Your task to perform on an android device: turn on improve location accuracy Image 0: 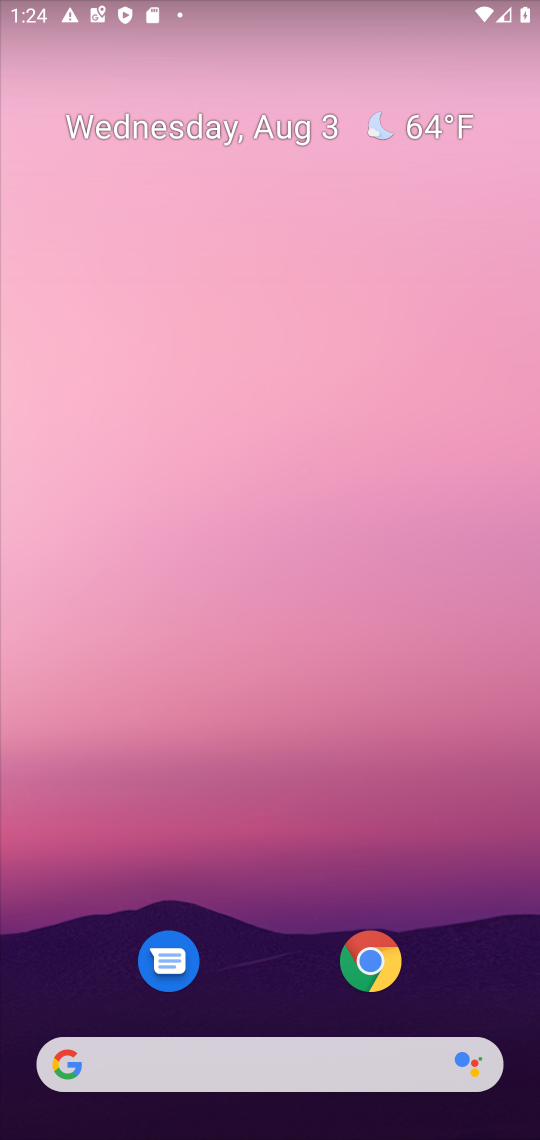
Step 0: drag from (439, 808) to (475, 31)
Your task to perform on an android device: turn on improve location accuracy Image 1: 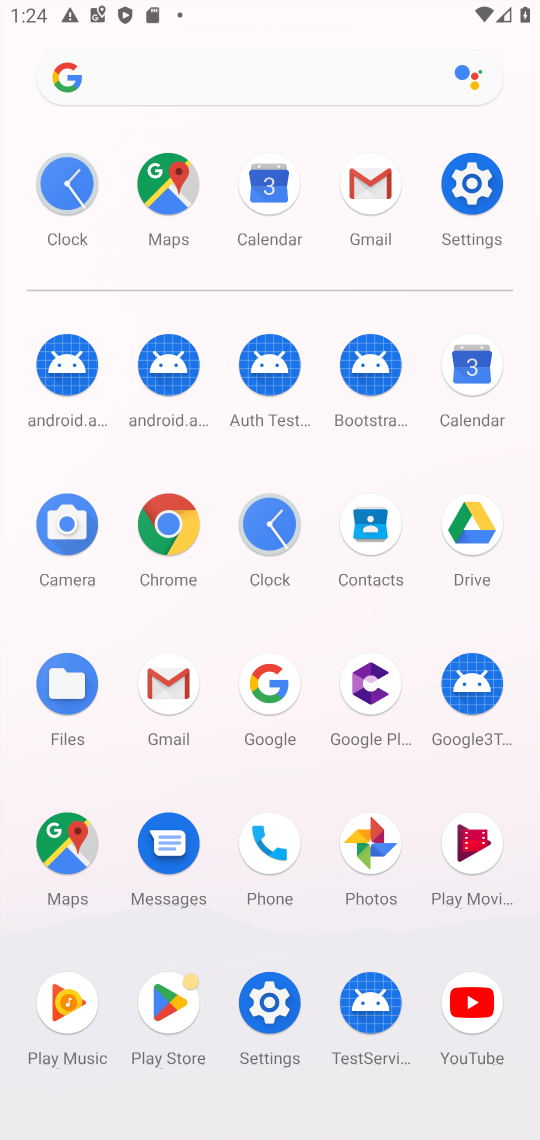
Step 1: click (471, 181)
Your task to perform on an android device: turn on improve location accuracy Image 2: 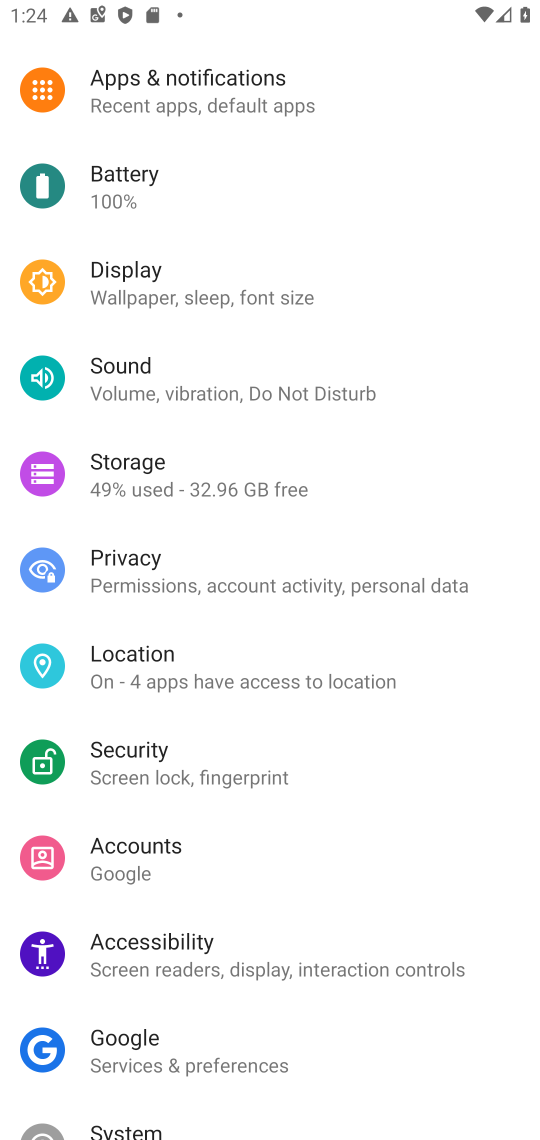
Step 2: click (129, 676)
Your task to perform on an android device: turn on improve location accuracy Image 3: 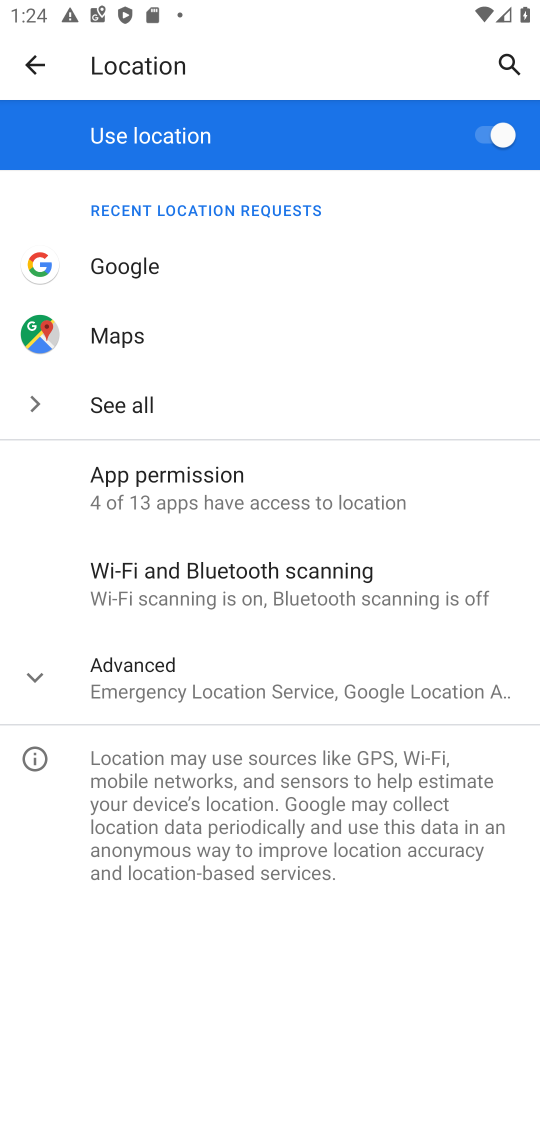
Step 3: click (31, 688)
Your task to perform on an android device: turn on improve location accuracy Image 4: 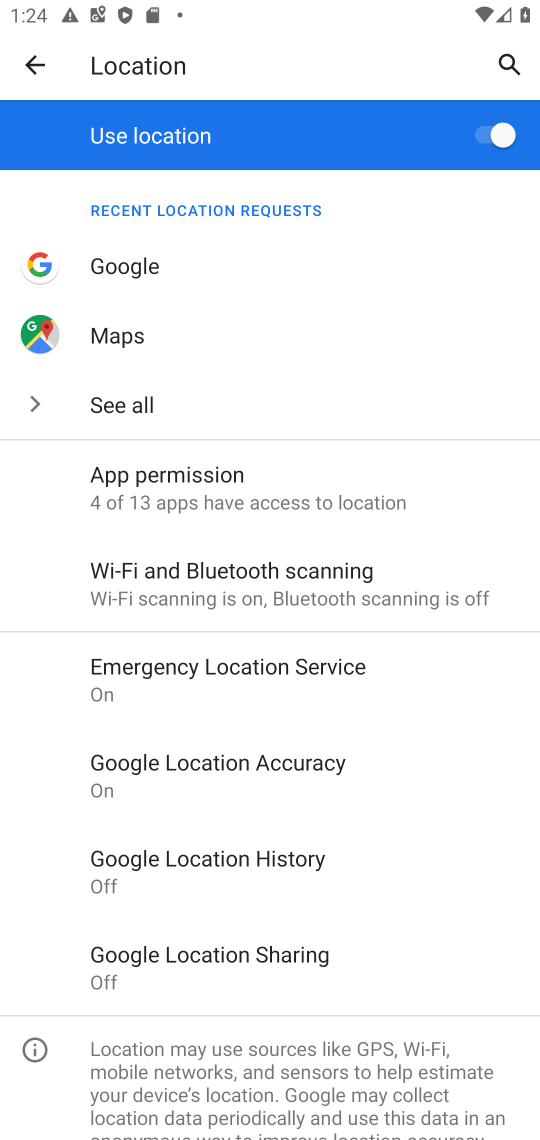
Step 4: click (121, 772)
Your task to perform on an android device: turn on improve location accuracy Image 5: 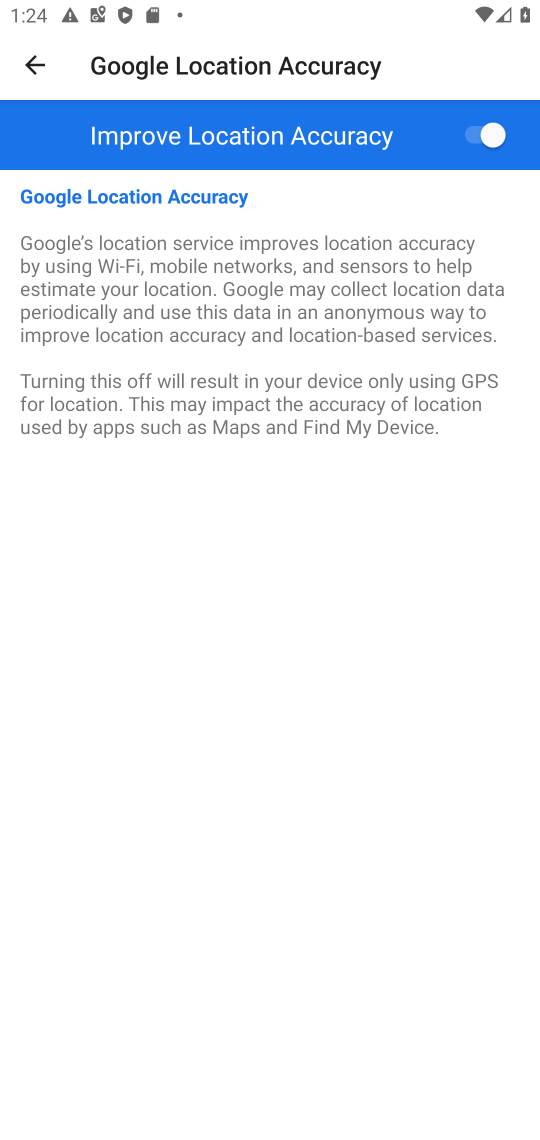
Step 5: task complete